Your task to perform on an android device: Toggle the flashlight Image 0: 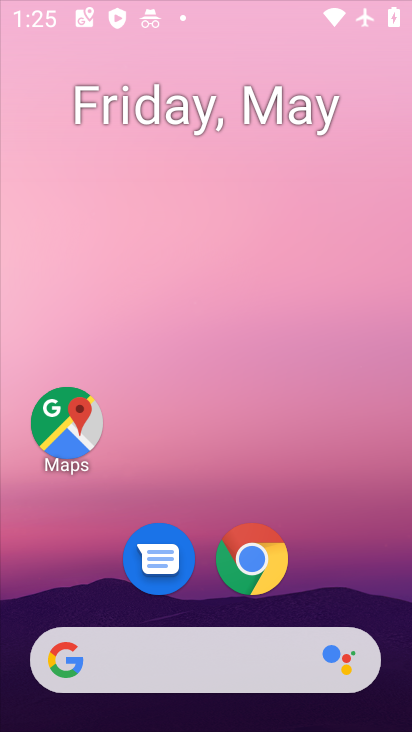
Step 0: drag from (375, 226) to (387, 122)
Your task to perform on an android device: Toggle the flashlight Image 1: 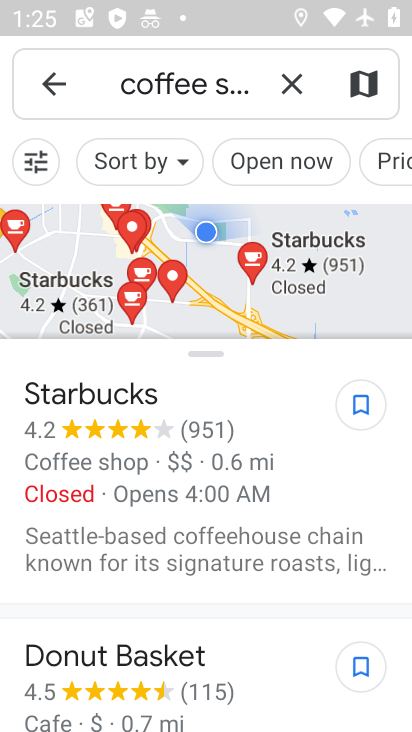
Step 1: press home button
Your task to perform on an android device: Toggle the flashlight Image 2: 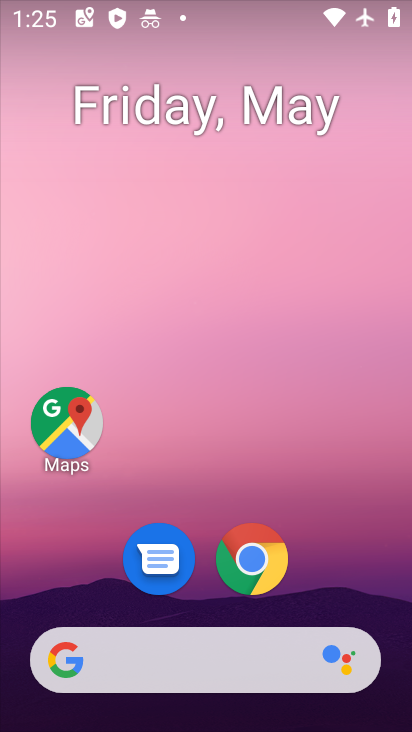
Step 2: drag from (334, 540) to (386, 136)
Your task to perform on an android device: Toggle the flashlight Image 3: 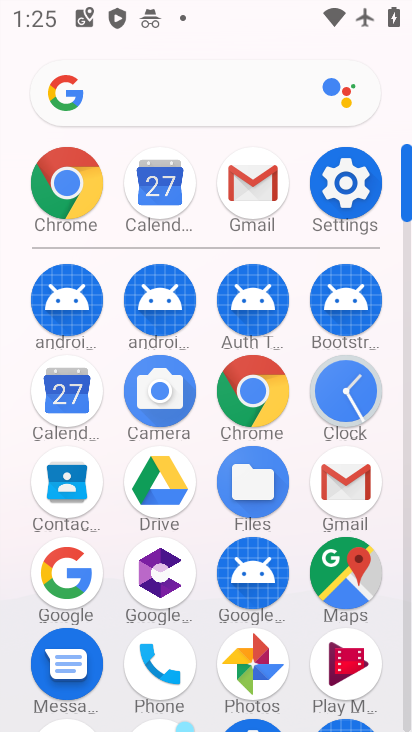
Step 3: click (368, 187)
Your task to perform on an android device: Toggle the flashlight Image 4: 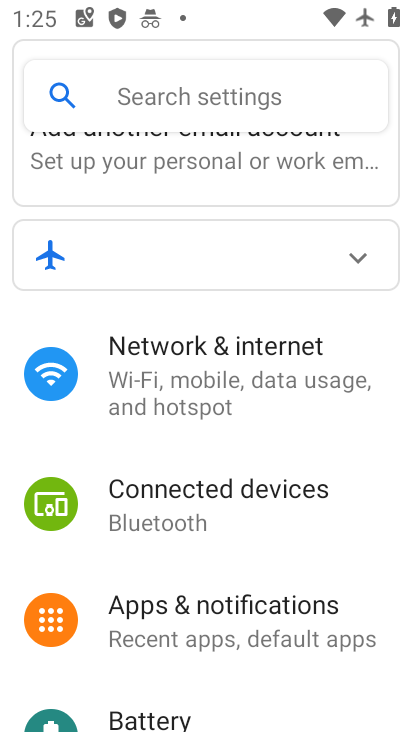
Step 4: click (237, 366)
Your task to perform on an android device: Toggle the flashlight Image 5: 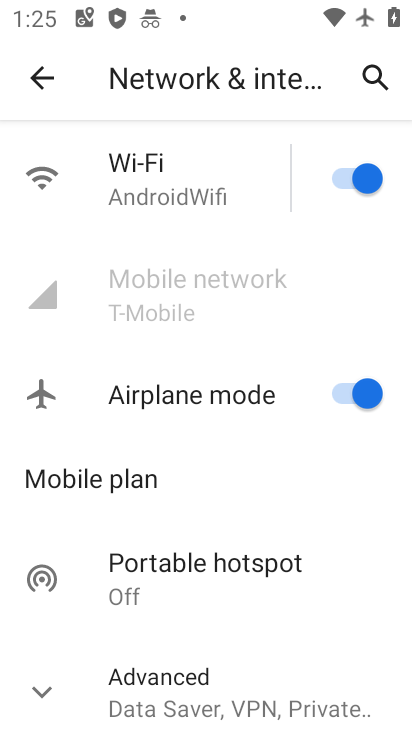
Step 5: click (45, 62)
Your task to perform on an android device: Toggle the flashlight Image 6: 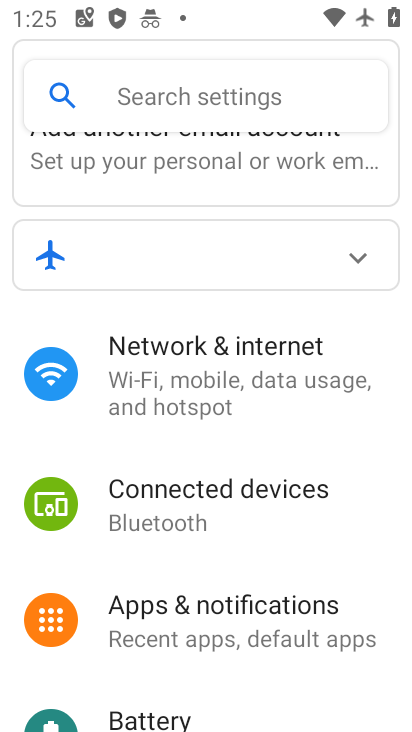
Step 6: drag from (192, 623) to (246, 299)
Your task to perform on an android device: Toggle the flashlight Image 7: 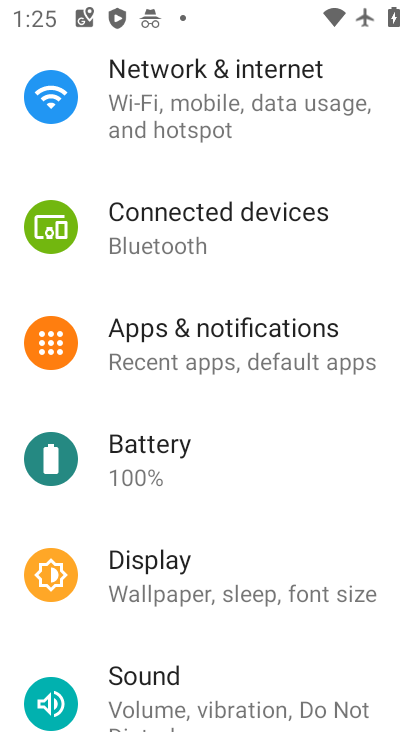
Step 7: click (159, 552)
Your task to perform on an android device: Toggle the flashlight Image 8: 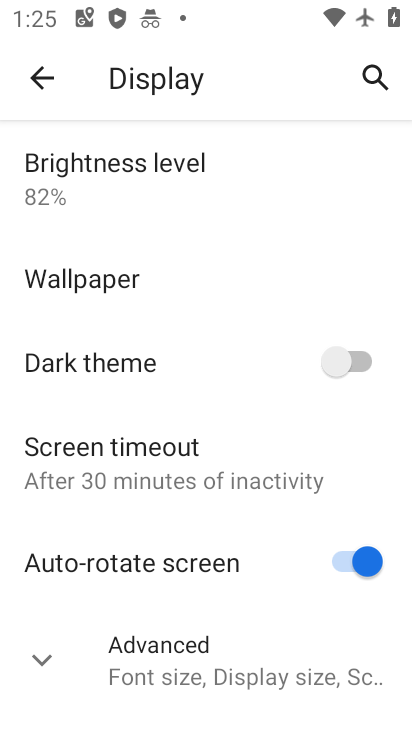
Step 8: task complete